Your task to perform on an android device: Go to Google Image 0: 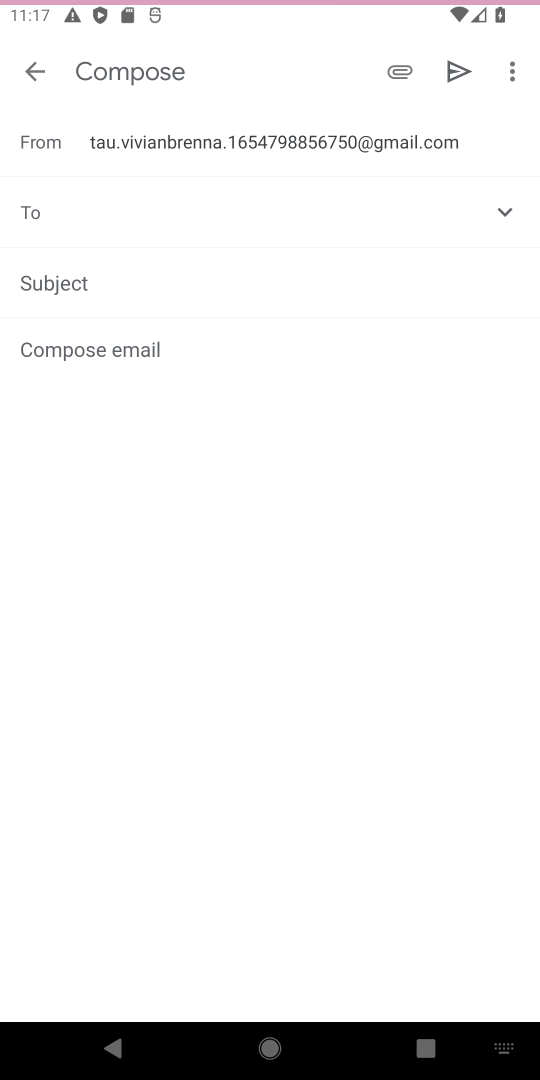
Step 0: press home button
Your task to perform on an android device: Go to Google Image 1: 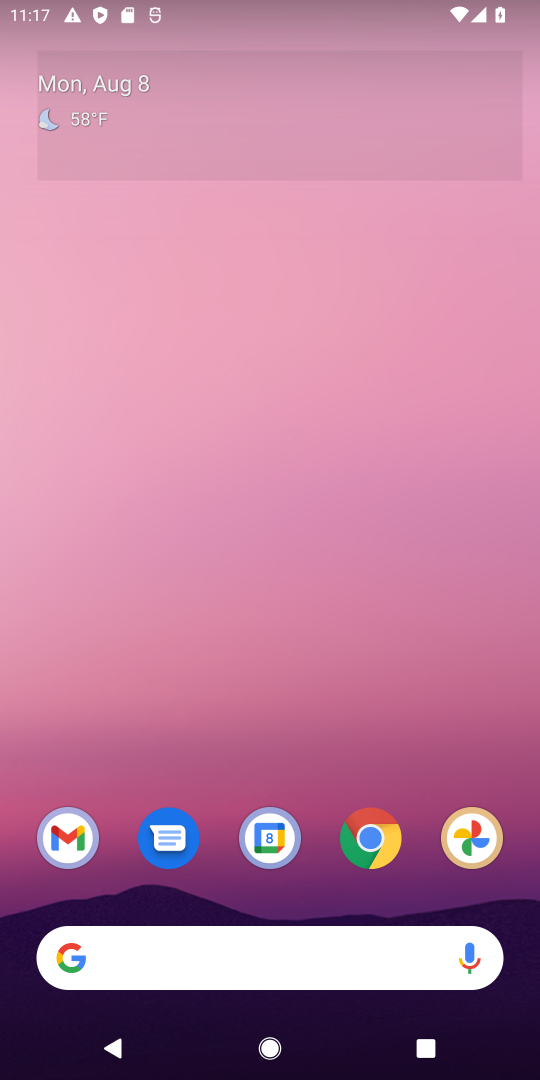
Step 1: drag from (361, 868) to (366, 59)
Your task to perform on an android device: Go to Google Image 2: 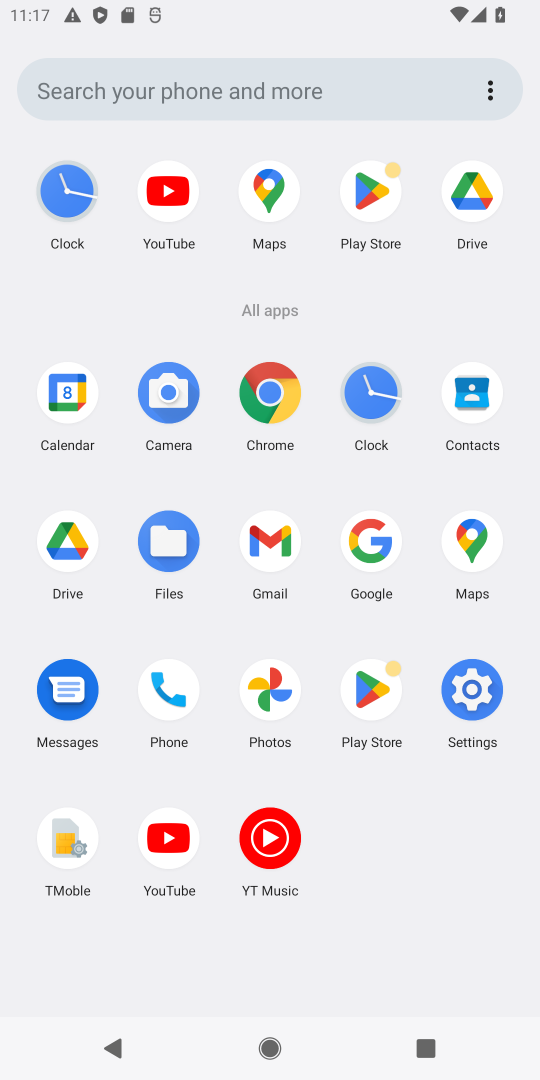
Step 2: click (377, 533)
Your task to perform on an android device: Go to Google Image 3: 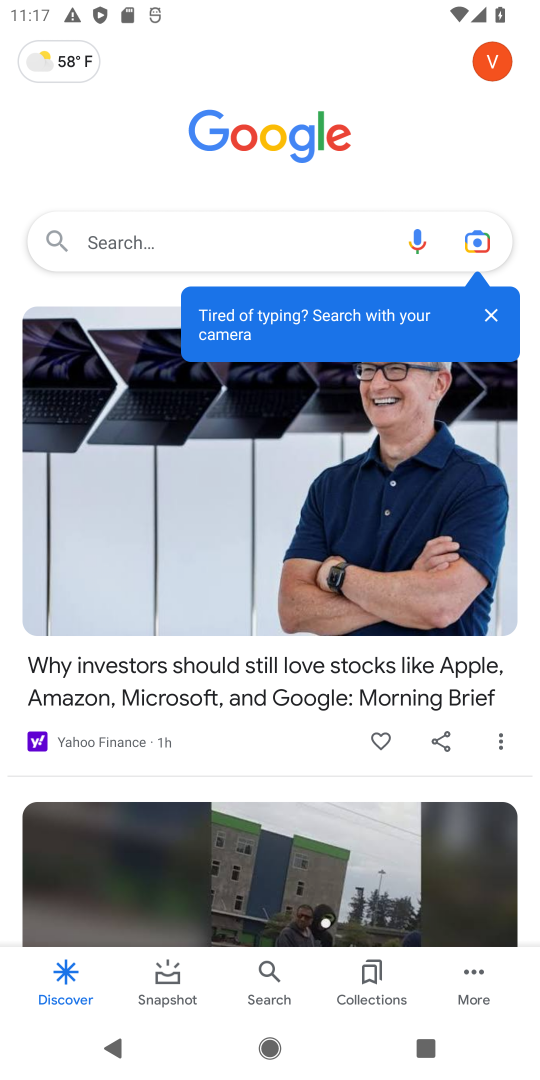
Step 3: task complete